Your task to perform on an android device: turn off smart reply in the gmail app Image 0: 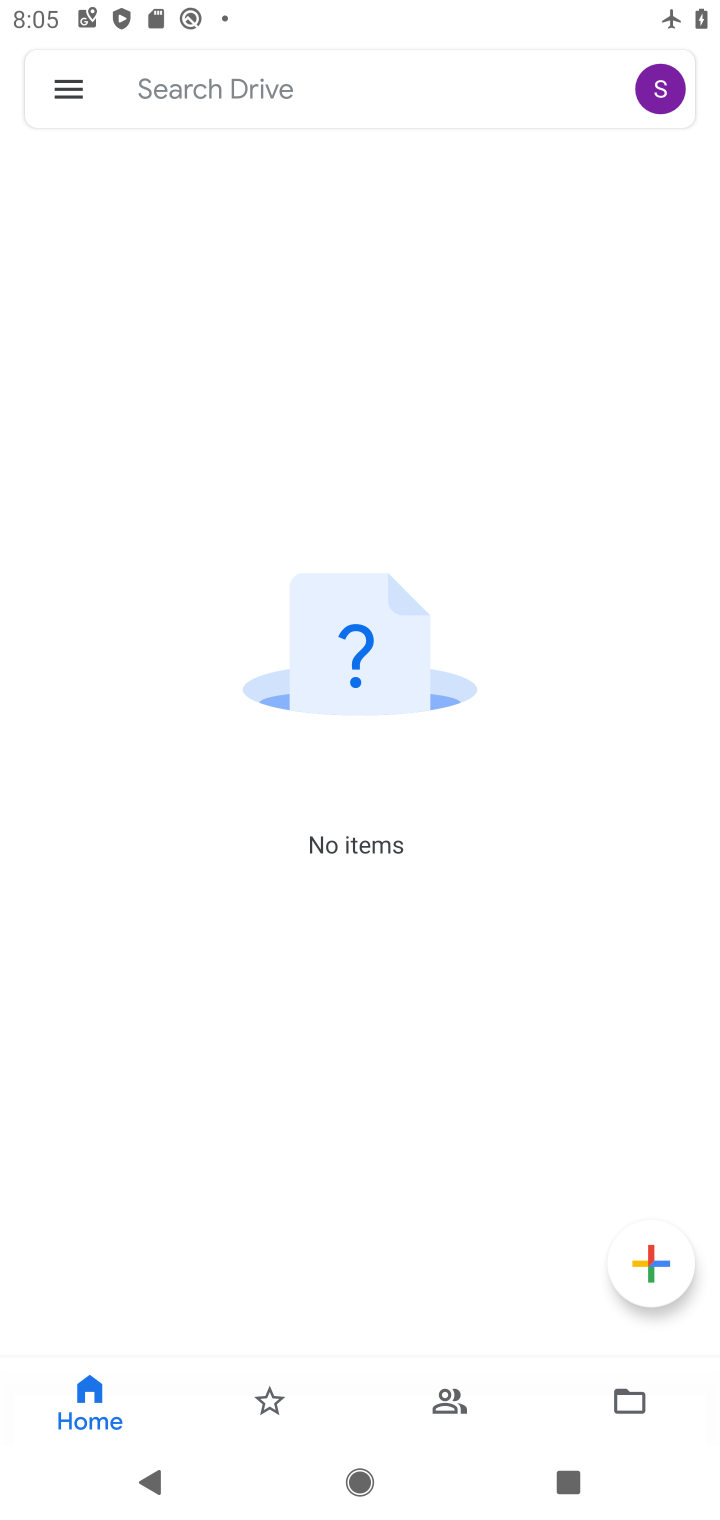
Step 0: press home button
Your task to perform on an android device: turn off smart reply in the gmail app Image 1: 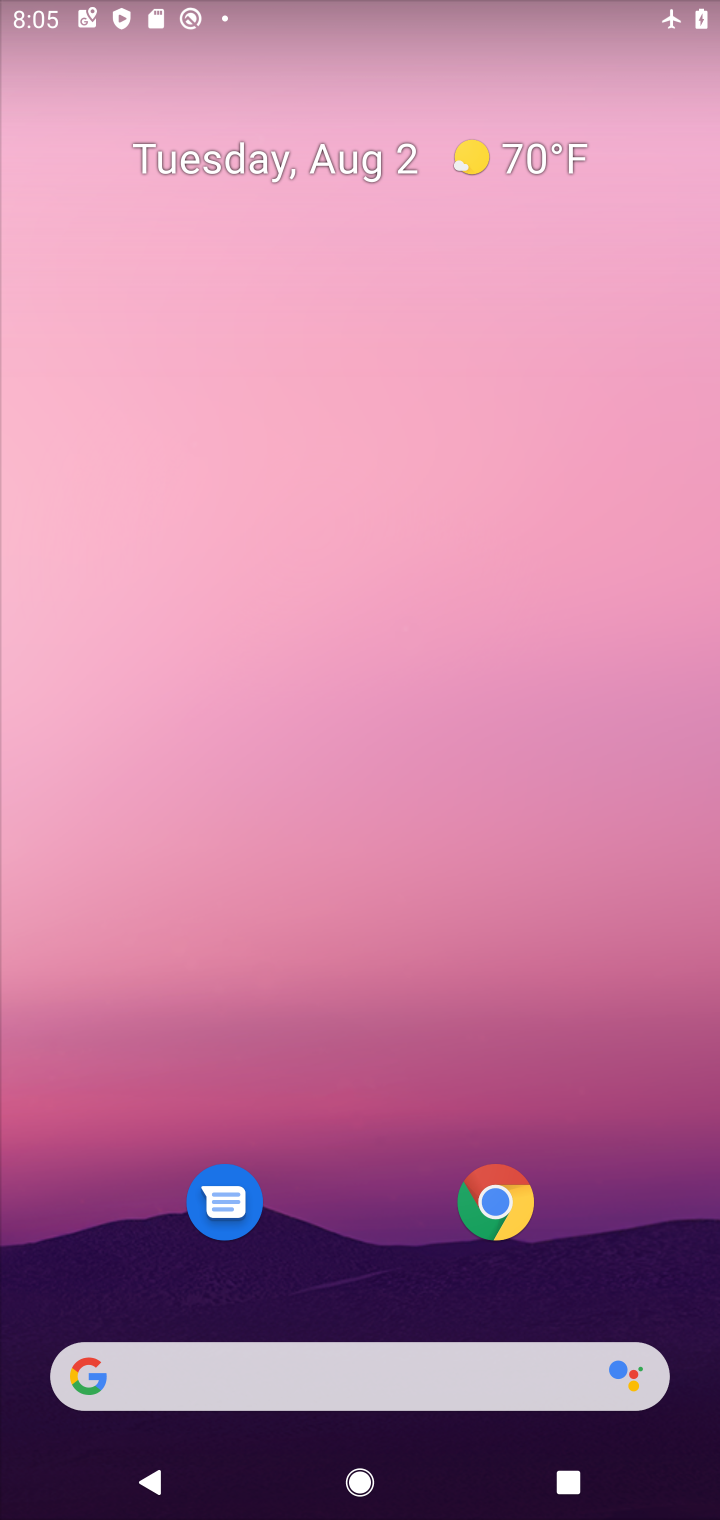
Step 1: drag from (373, 1268) to (411, 28)
Your task to perform on an android device: turn off smart reply in the gmail app Image 2: 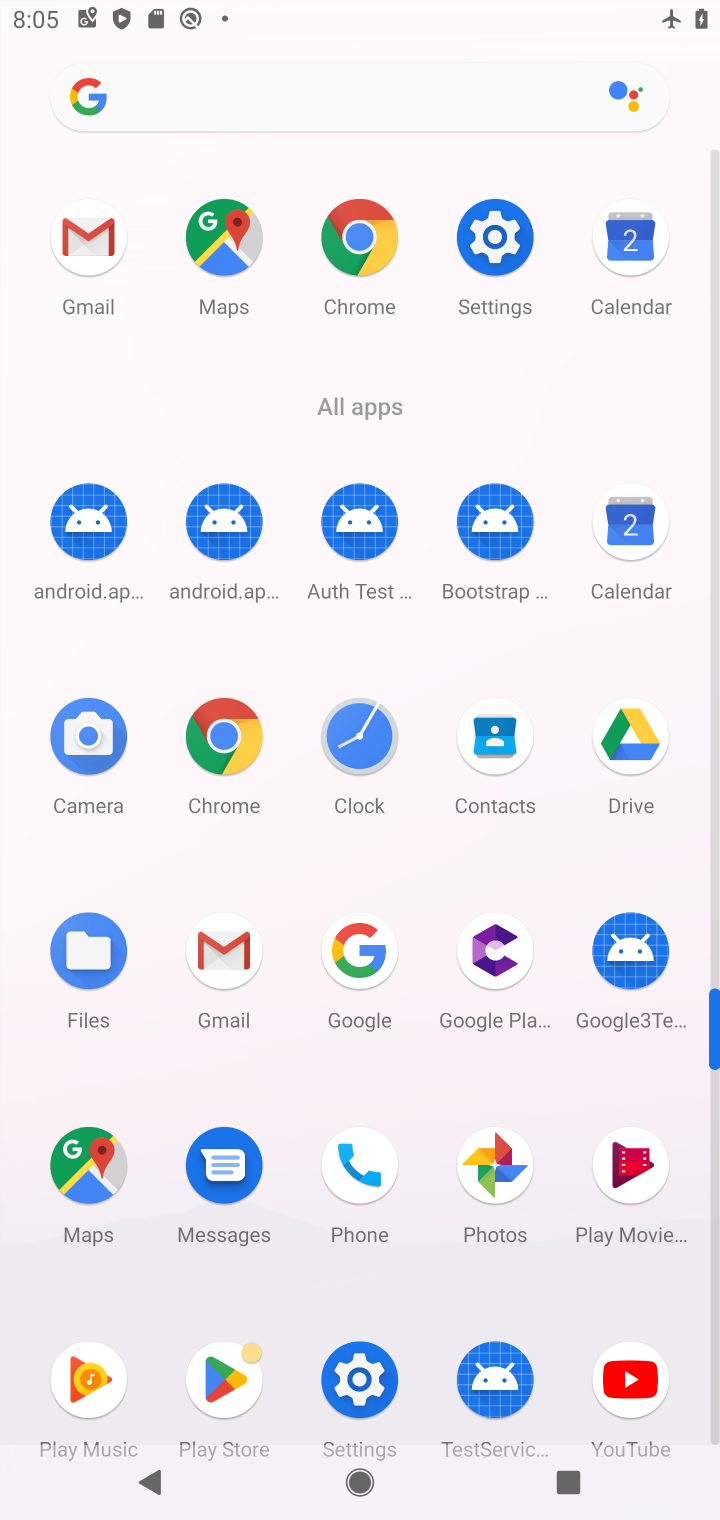
Step 2: click (88, 241)
Your task to perform on an android device: turn off smart reply in the gmail app Image 3: 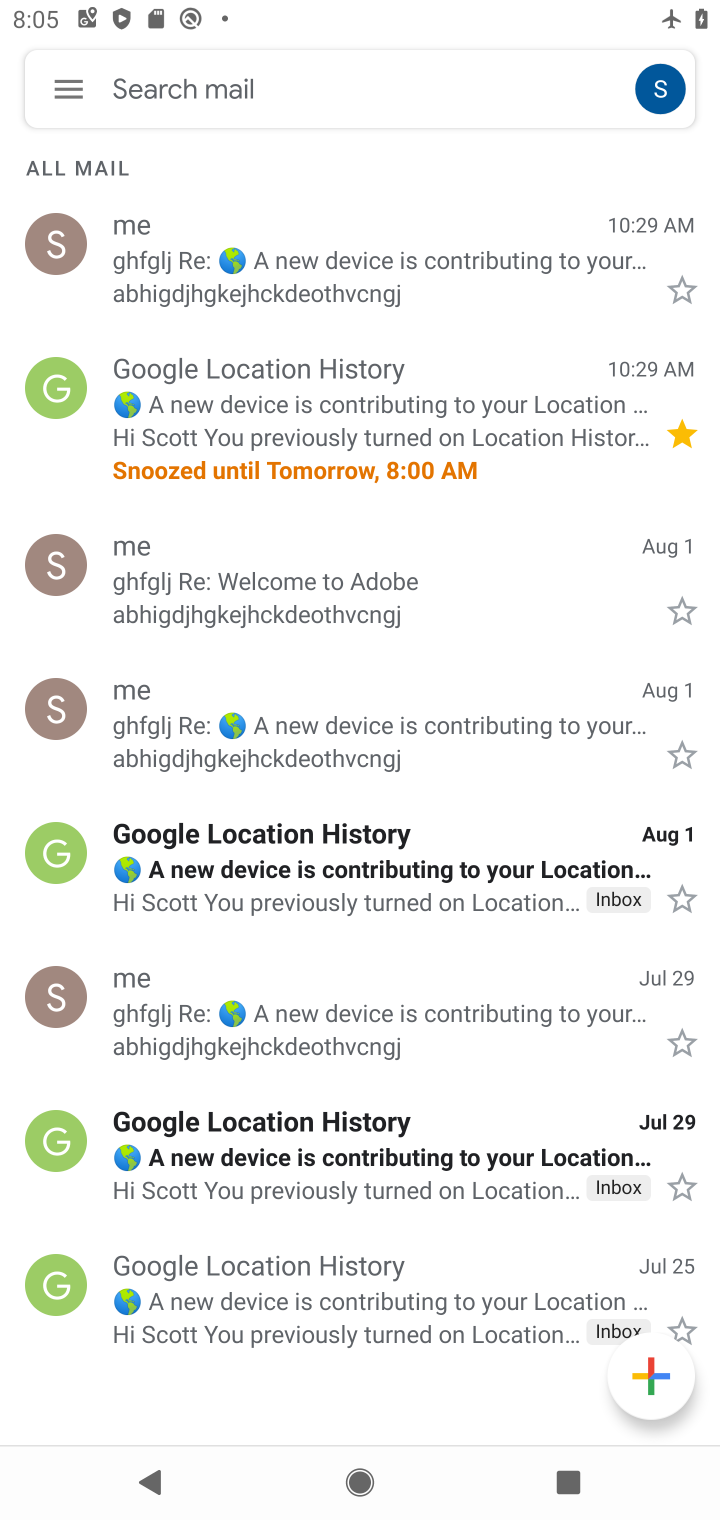
Step 3: click (52, 86)
Your task to perform on an android device: turn off smart reply in the gmail app Image 4: 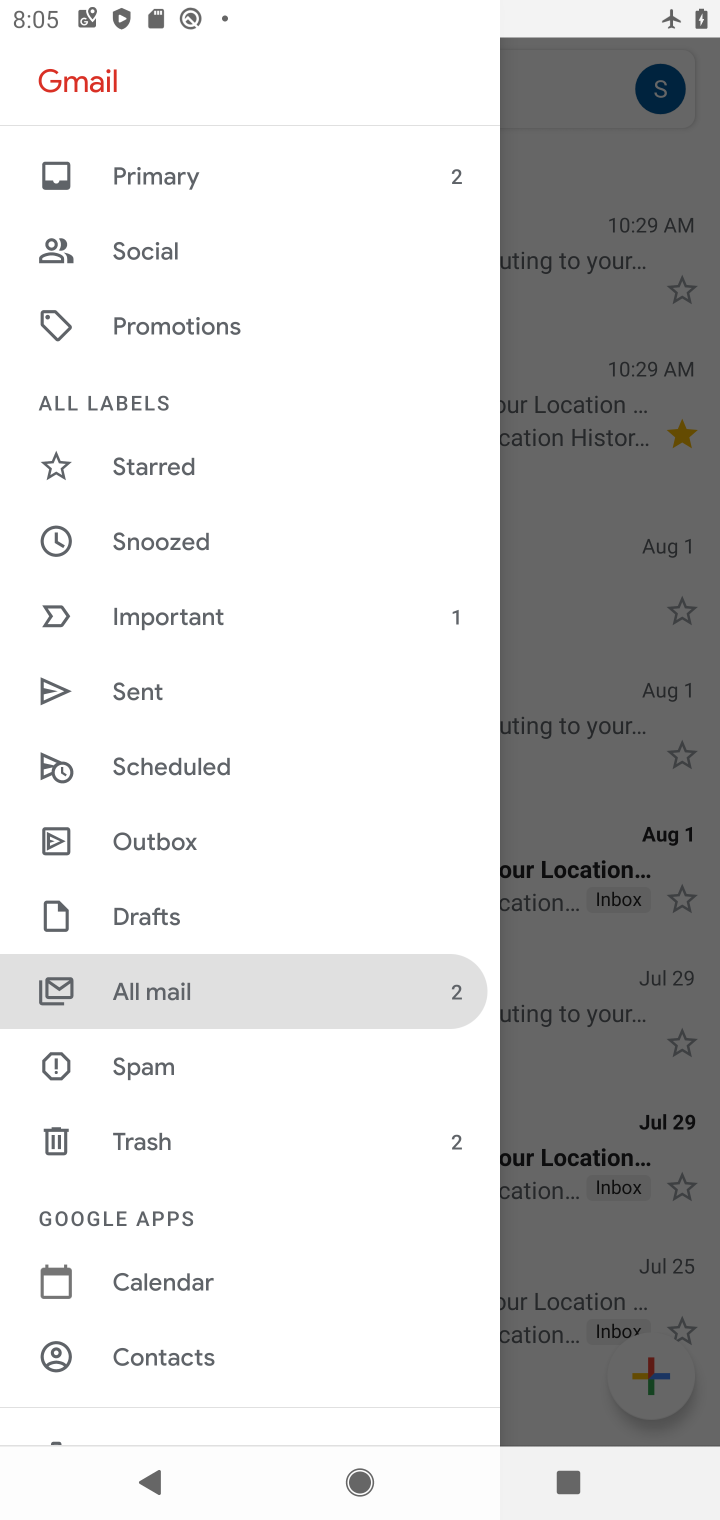
Step 4: drag from (224, 1226) to (222, 658)
Your task to perform on an android device: turn off smart reply in the gmail app Image 5: 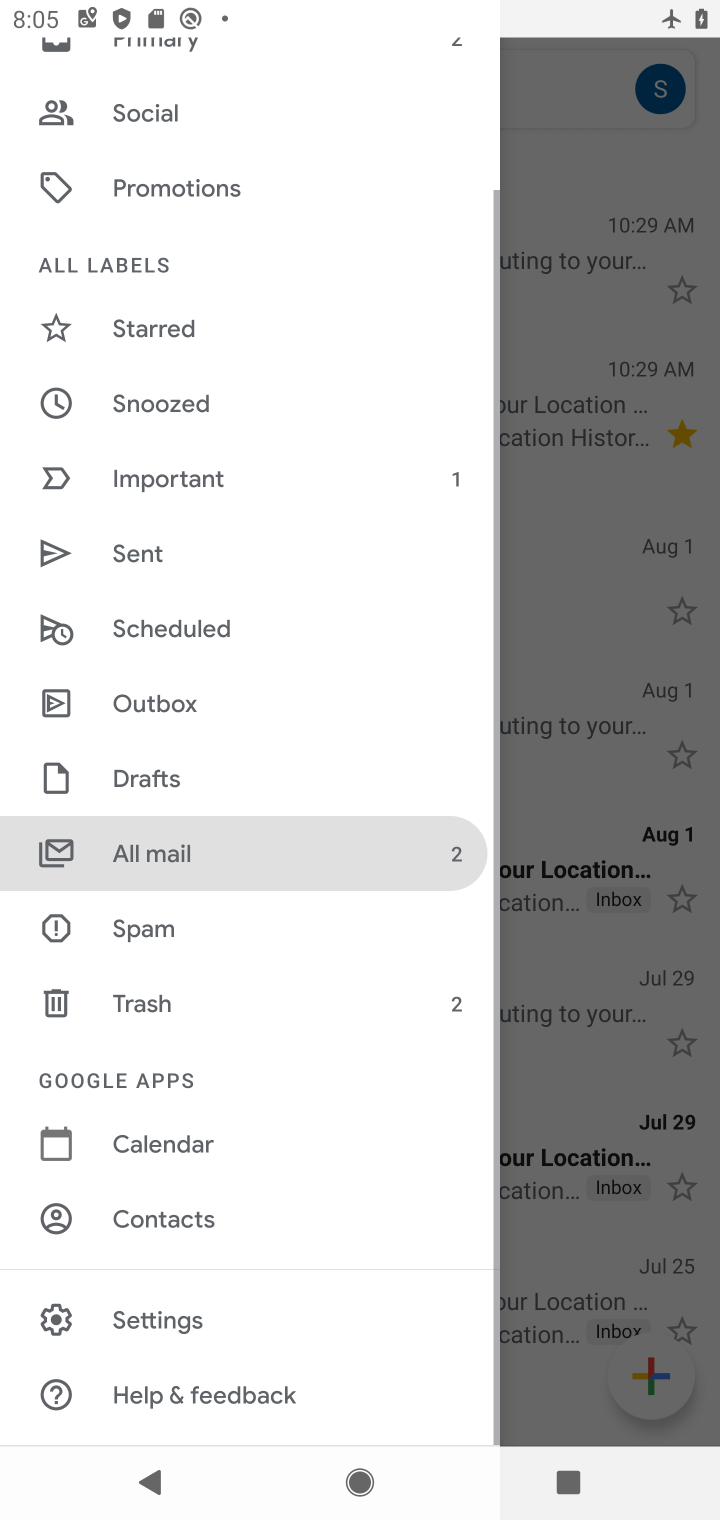
Step 5: click (167, 1312)
Your task to perform on an android device: turn off smart reply in the gmail app Image 6: 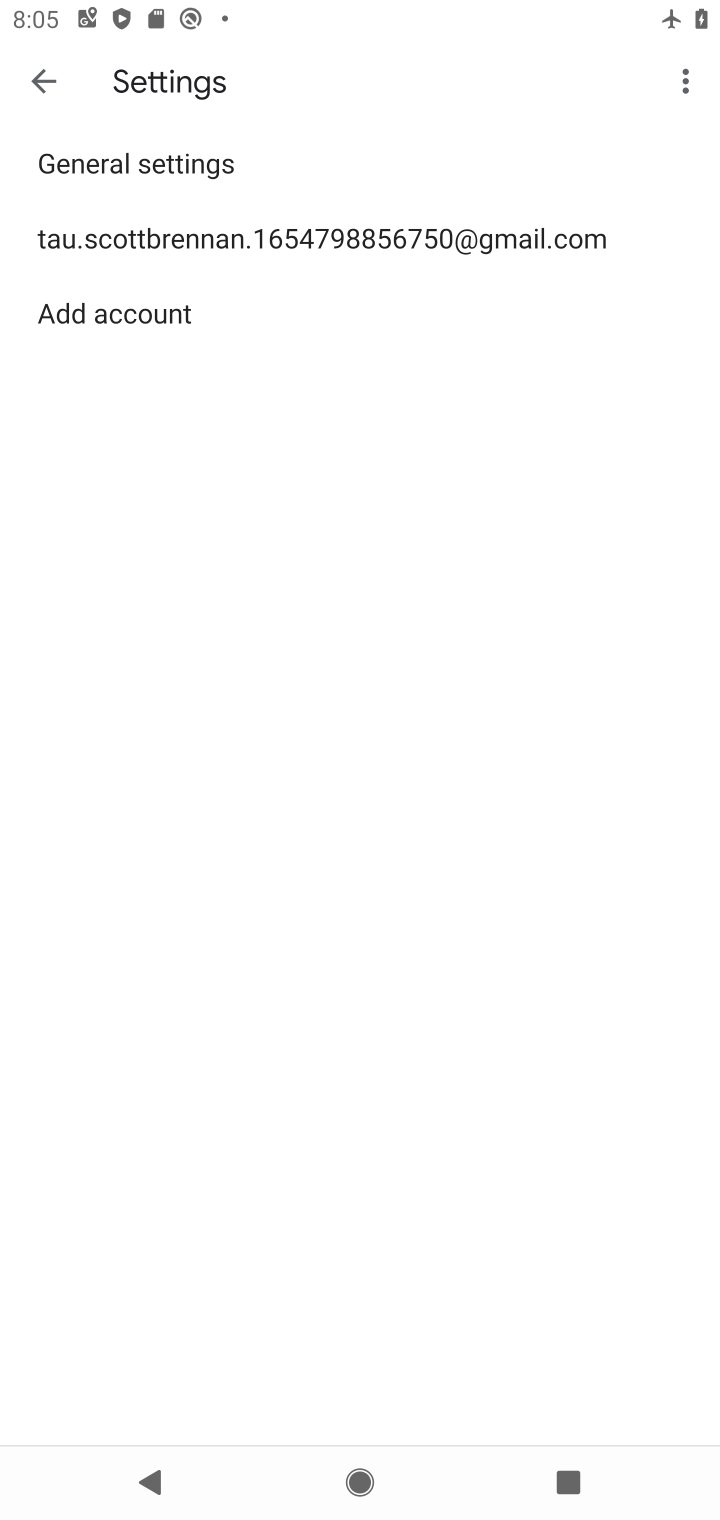
Step 6: click (166, 242)
Your task to perform on an android device: turn off smart reply in the gmail app Image 7: 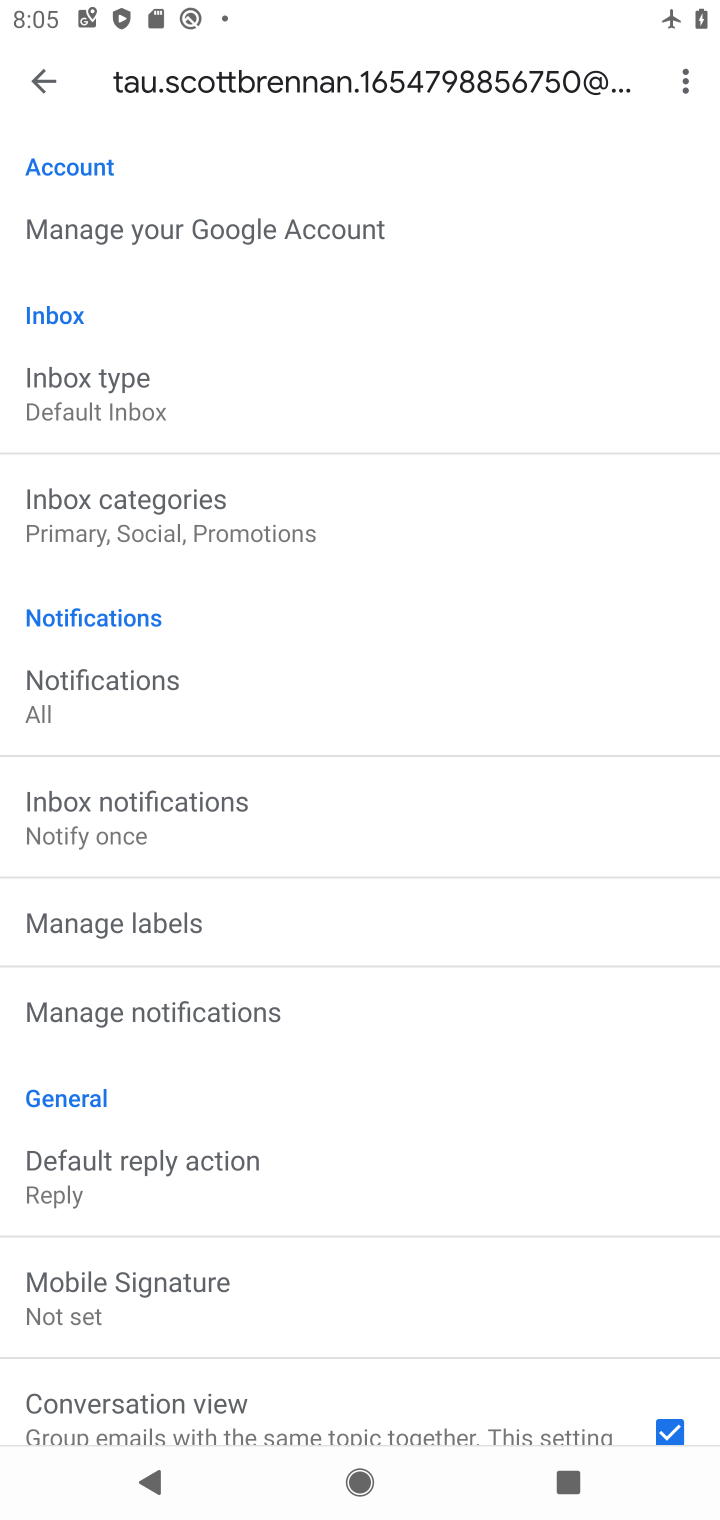
Step 7: drag from (315, 737) to (319, 299)
Your task to perform on an android device: turn off smart reply in the gmail app Image 8: 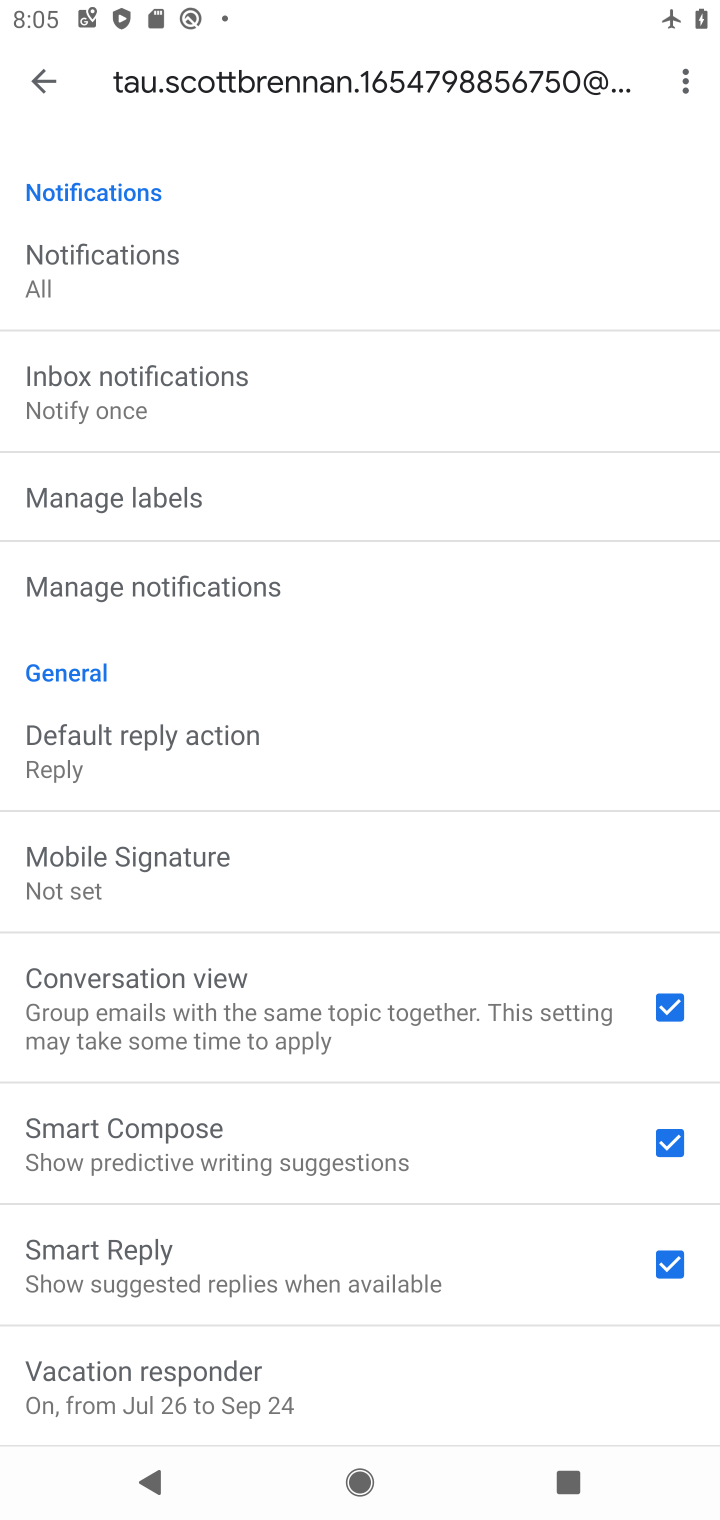
Step 8: click (674, 1266)
Your task to perform on an android device: turn off smart reply in the gmail app Image 9: 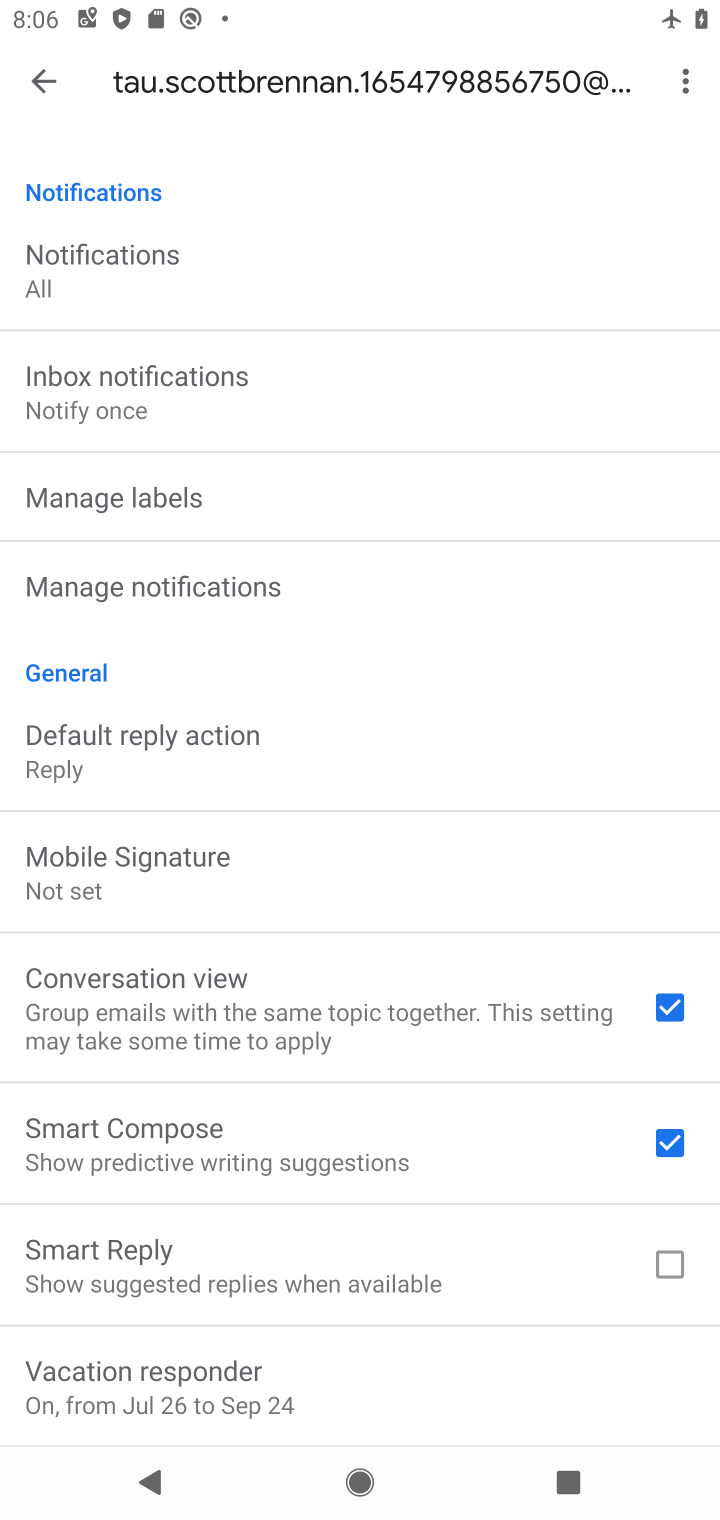
Step 9: task complete